Your task to perform on an android device: Open the map Image 0: 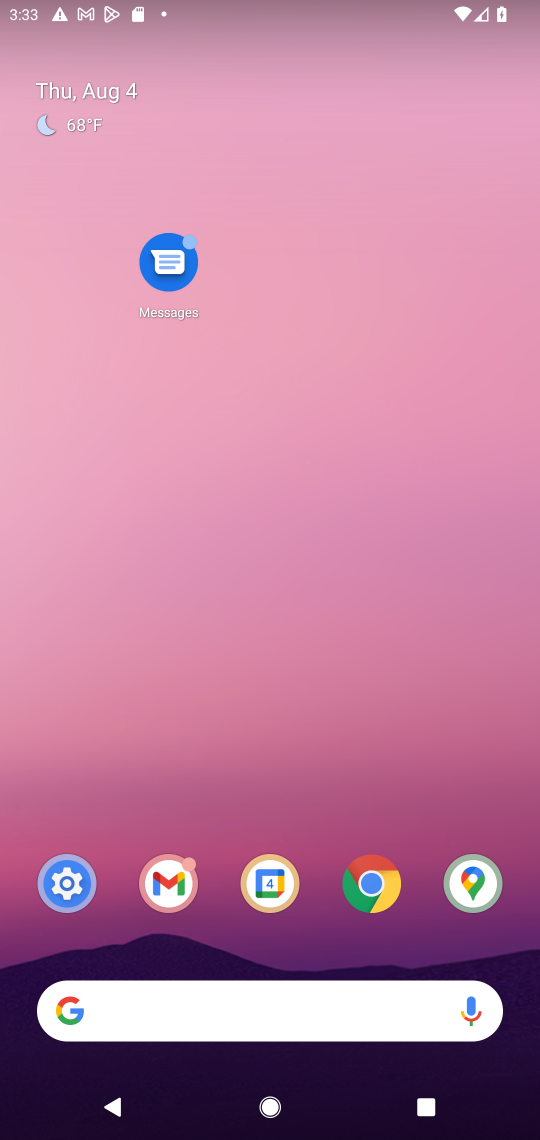
Step 0: drag from (315, 899) to (310, 353)
Your task to perform on an android device: Open the map Image 1: 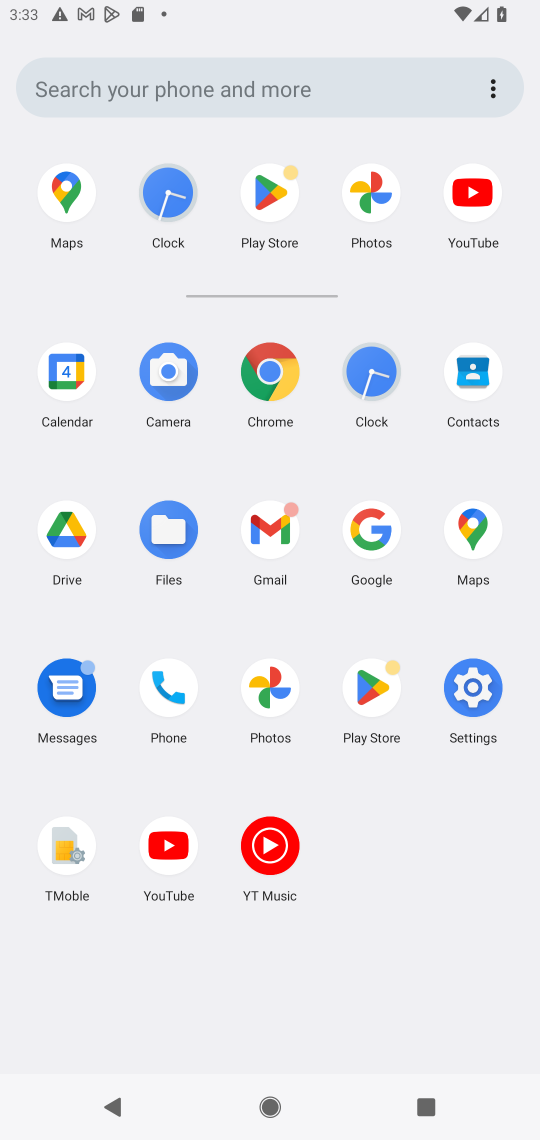
Step 1: click (476, 527)
Your task to perform on an android device: Open the map Image 2: 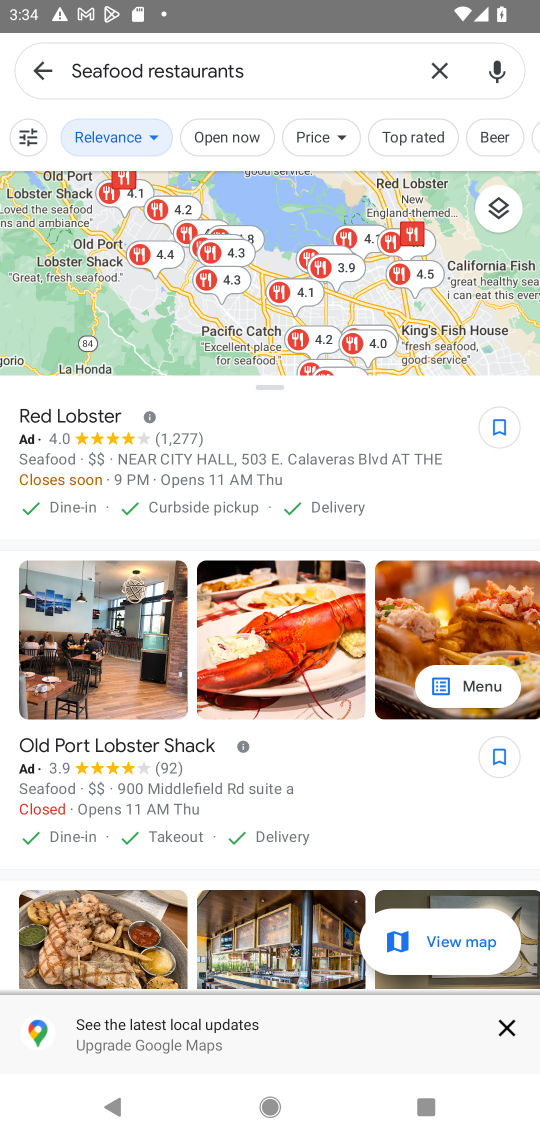
Step 2: task complete